Your task to perform on an android device: Open network settings Image 0: 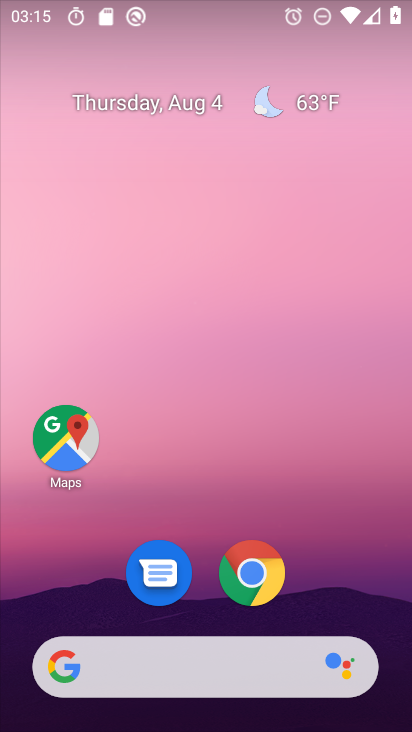
Step 0: drag from (327, 555) to (311, 133)
Your task to perform on an android device: Open network settings Image 1: 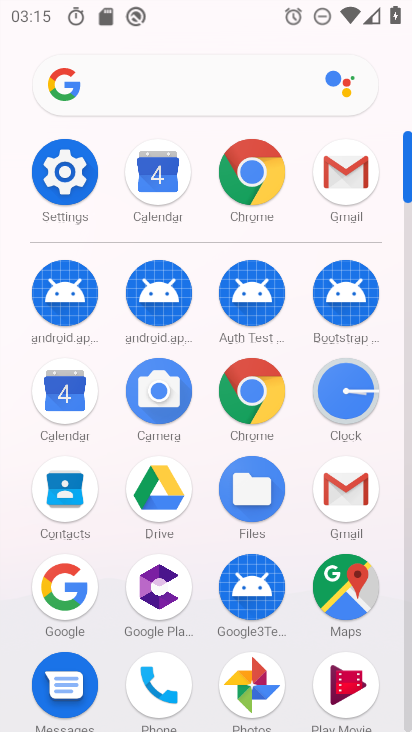
Step 1: click (62, 155)
Your task to perform on an android device: Open network settings Image 2: 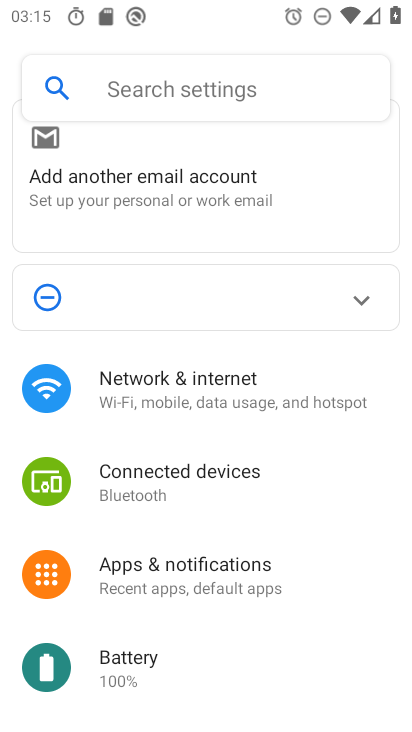
Step 2: click (166, 378)
Your task to perform on an android device: Open network settings Image 3: 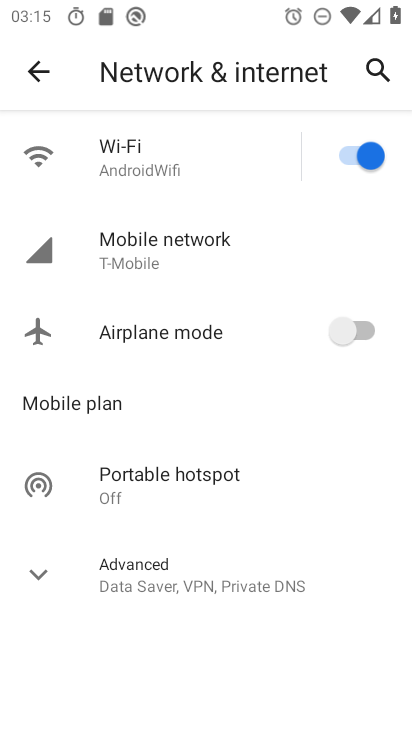
Step 3: task complete